Your task to perform on an android device: search for starred emails in the gmail app Image 0: 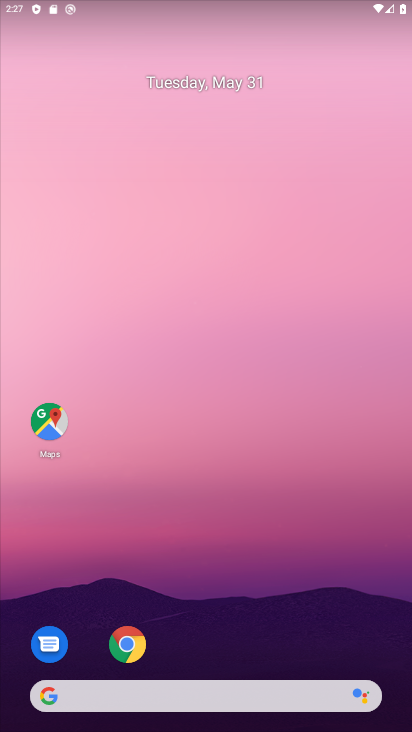
Step 0: press home button
Your task to perform on an android device: search for starred emails in the gmail app Image 1: 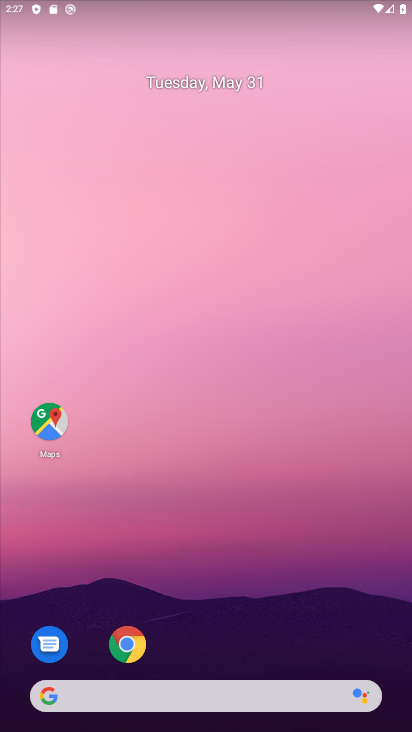
Step 1: drag from (295, 659) to (274, 0)
Your task to perform on an android device: search for starred emails in the gmail app Image 2: 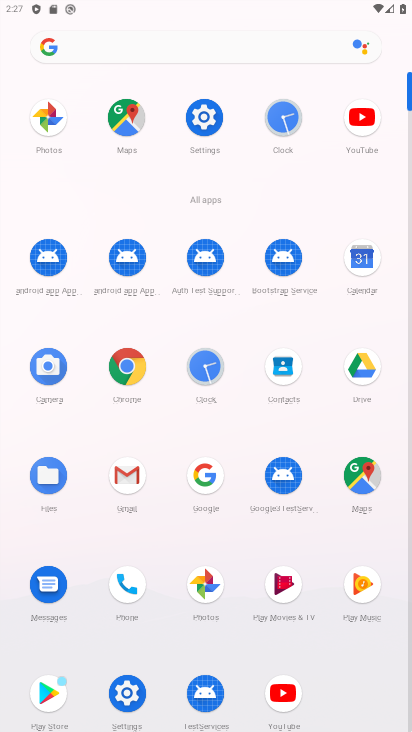
Step 2: click (128, 468)
Your task to perform on an android device: search for starred emails in the gmail app Image 3: 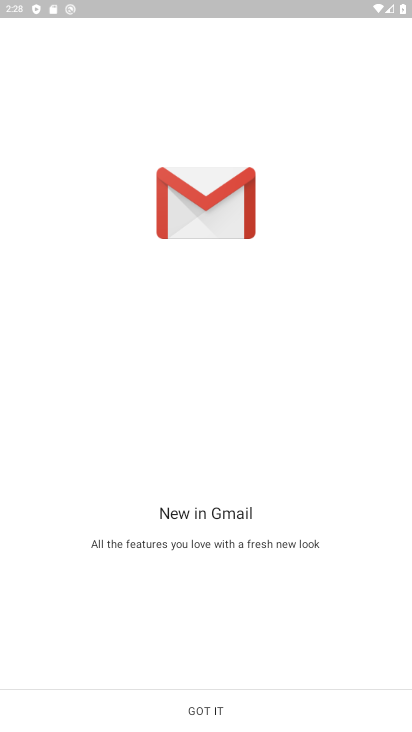
Step 3: click (215, 708)
Your task to perform on an android device: search for starred emails in the gmail app Image 4: 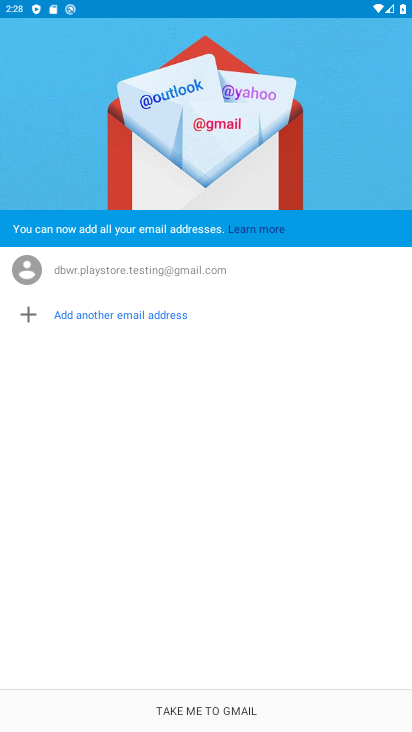
Step 4: click (222, 715)
Your task to perform on an android device: search for starred emails in the gmail app Image 5: 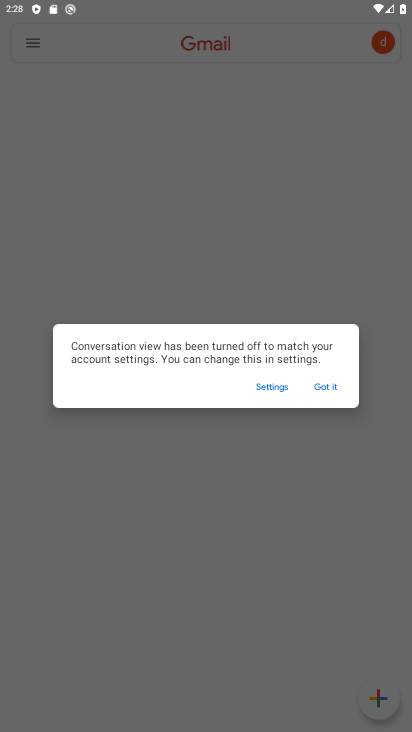
Step 5: click (316, 388)
Your task to perform on an android device: search for starred emails in the gmail app Image 6: 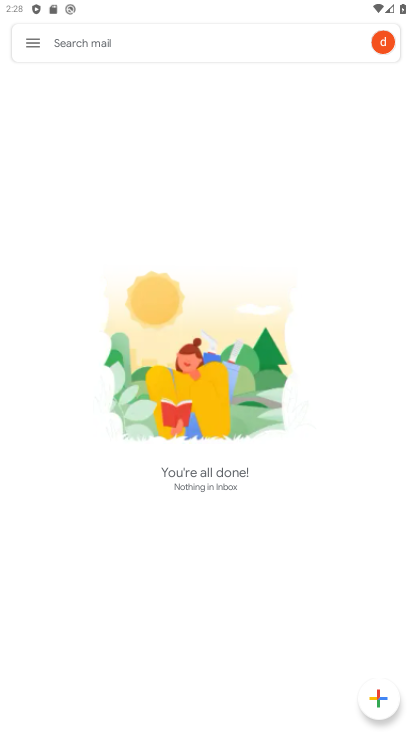
Step 6: click (35, 37)
Your task to perform on an android device: search for starred emails in the gmail app Image 7: 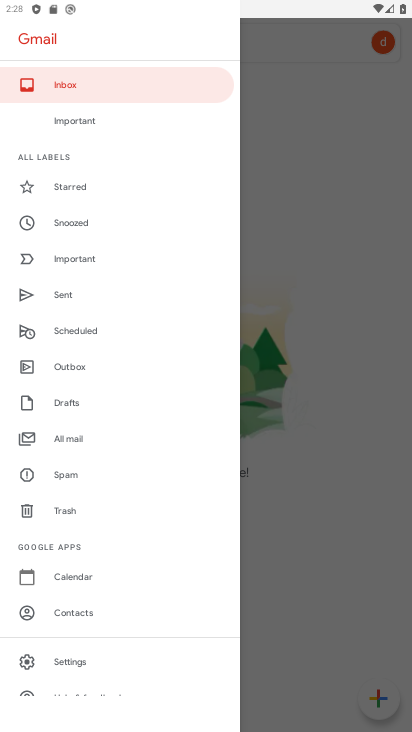
Step 7: click (78, 188)
Your task to perform on an android device: search for starred emails in the gmail app Image 8: 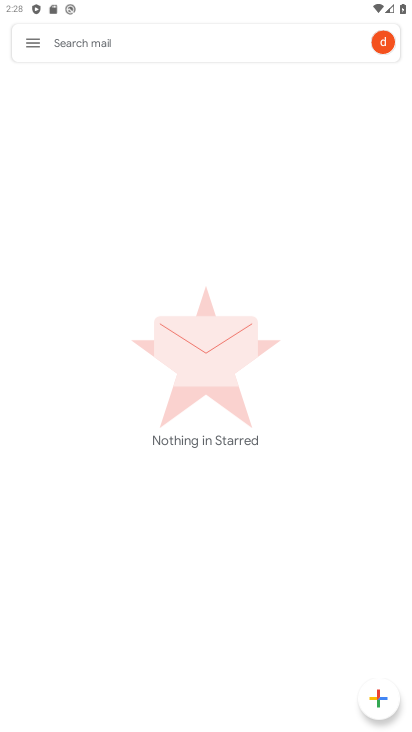
Step 8: task complete